Your task to perform on an android device: Open Google Maps and go to "Timeline" Image 0: 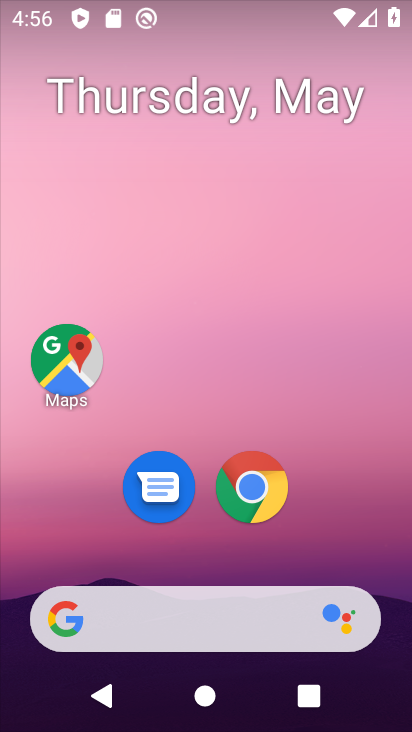
Step 0: click (70, 372)
Your task to perform on an android device: Open Google Maps and go to "Timeline" Image 1: 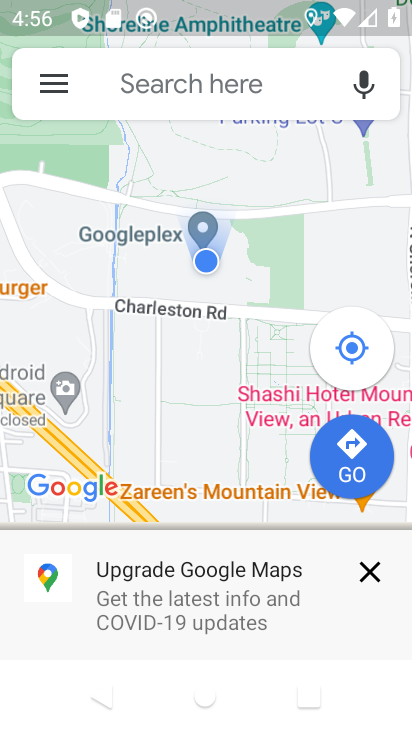
Step 1: click (63, 87)
Your task to perform on an android device: Open Google Maps and go to "Timeline" Image 2: 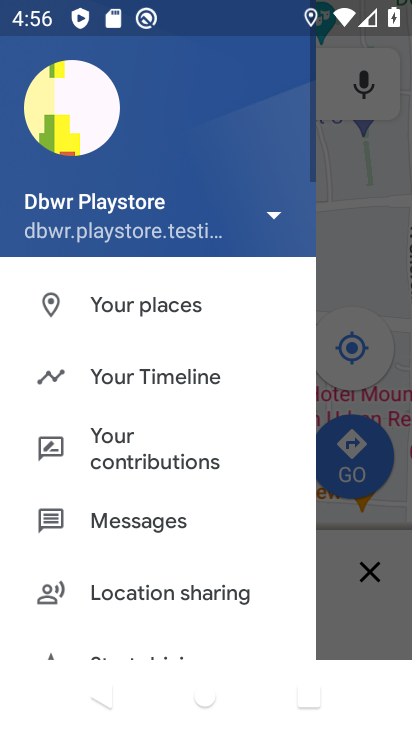
Step 2: click (192, 371)
Your task to perform on an android device: Open Google Maps and go to "Timeline" Image 3: 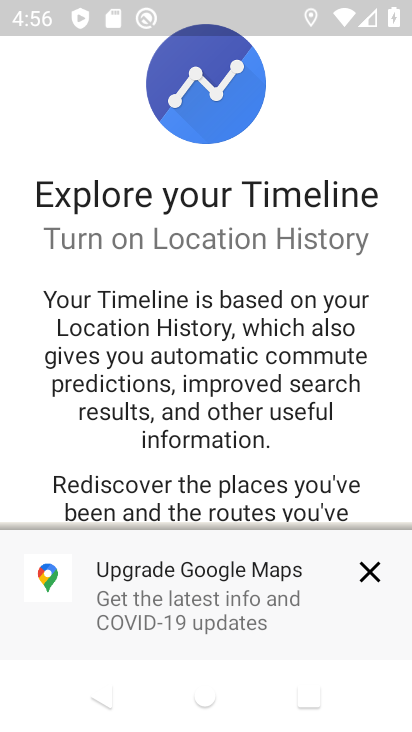
Step 3: drag from (205, 426) to (272, 97)
Your task to perform on an android device: Open Google Maps and go to "Timeline" Image 4: 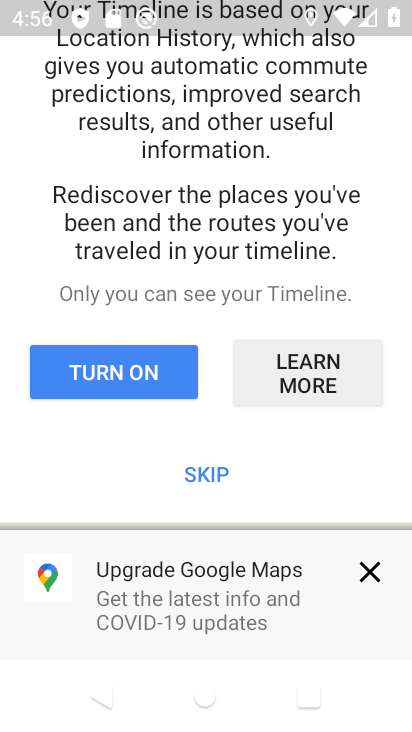
Step 4: click (210, 474)
Your task to perform on an android device: Open Google Maps and go to "Timeline" Image 5: 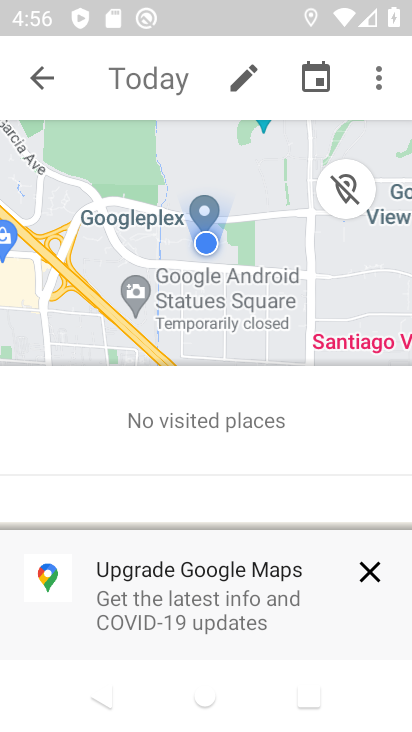
Step 5: task complete